Your task to perform on an android device: turn pop-ups off in chrome Image 0: 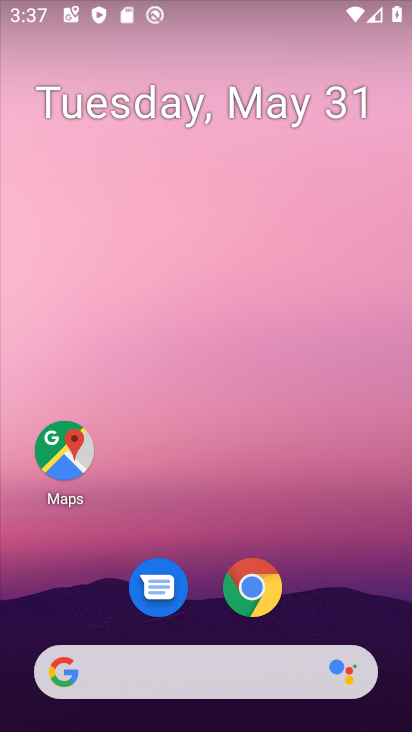
Step 0: click (250, 582)
Your task to perform on an android device: turn pop-ups off in chrome Image 1: 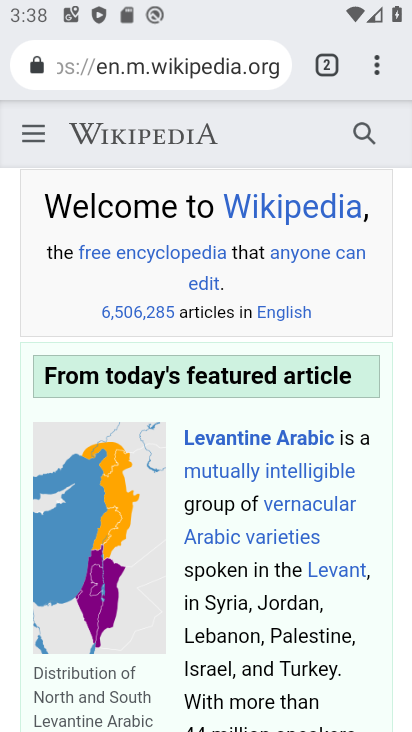
Step 1: click (376, 61)
Your task to perform on an android device: turn pop-ups off in chrome Image 2: 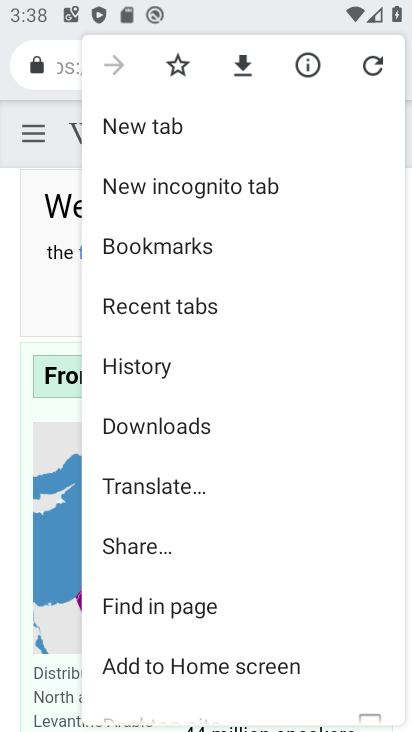
Step 2: drag from (202, 638) to (237, 218)
Your task to perform on an android device: turn pop-ups off in chrome Image 3: 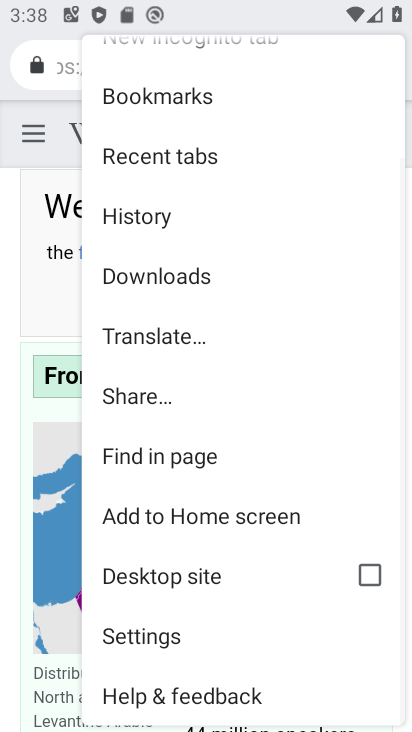
Step 3: click (176, 635)
Your task to perform on an android device: turn pop-ups off in chrome Image 4: 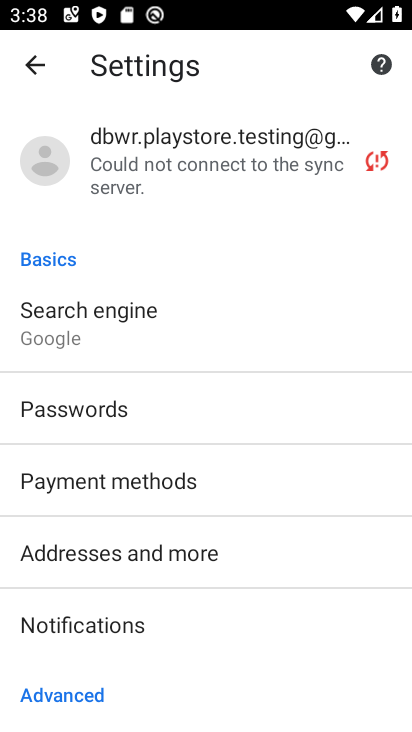
Step 4: drag from (150, 626) to (186, 161)
Your task to perform on an android device: turn pop-ups off in chrome Image 5: 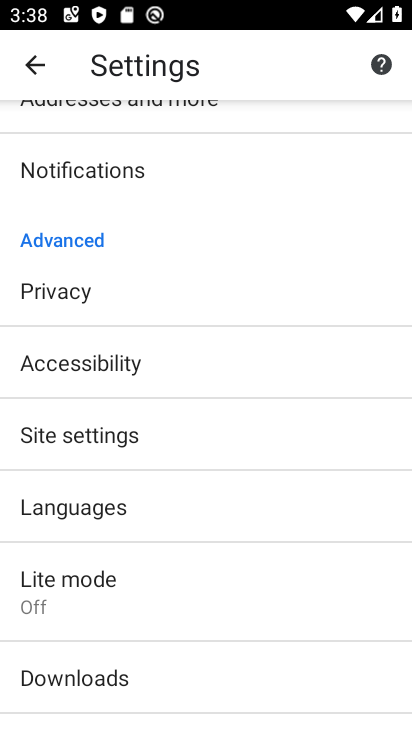
Step 5: click (86, 425)
Your task to perform on an android device: turn pop-ups off in chrome Image 6: 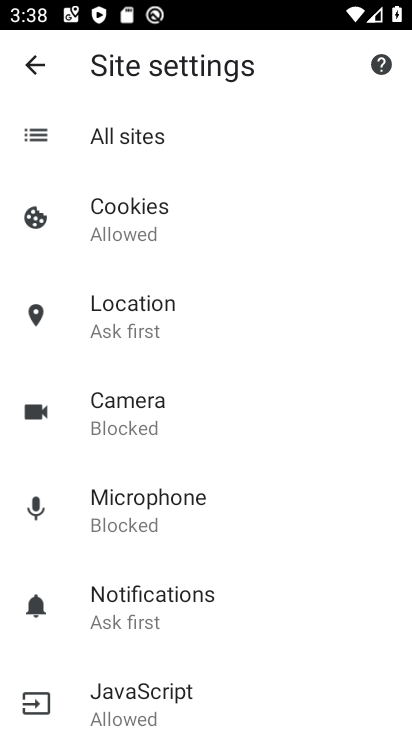
Step 6: drag from (198, 670) to (264, 300)
Your task to perform on an android device: turn pop-ups off in chrome Image 7: 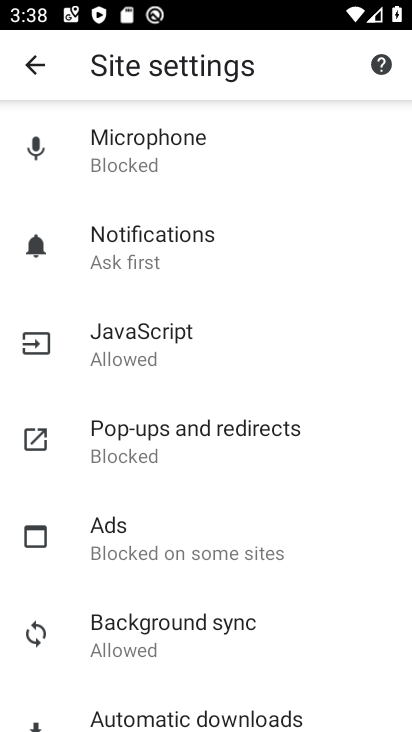
Step 7: click (219, 434)
Your task to perform on an android device: turn pop-ups off in chrome Image 8: 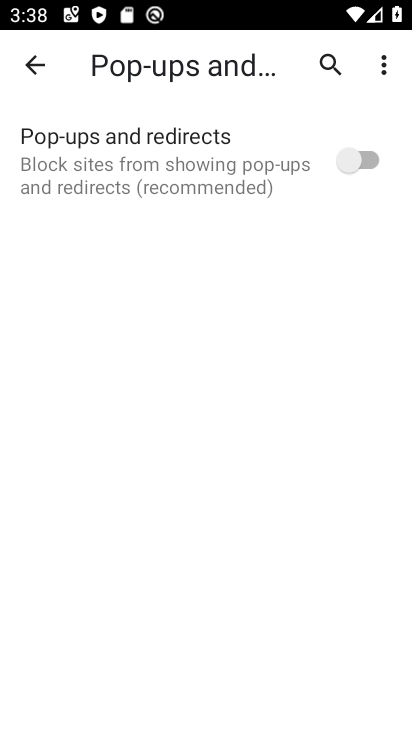
Step 8: task complete